Your task to perform on an android device: Go to CNN.com Image 0: 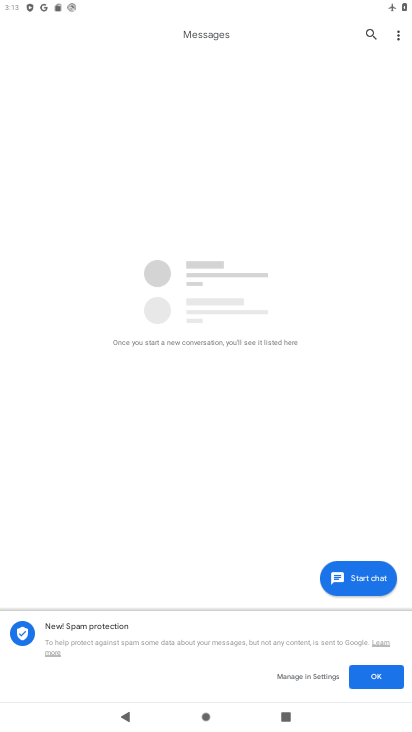
Step 0: press home button
Your task to perform on an android device: Go to CNN.com Image 1: 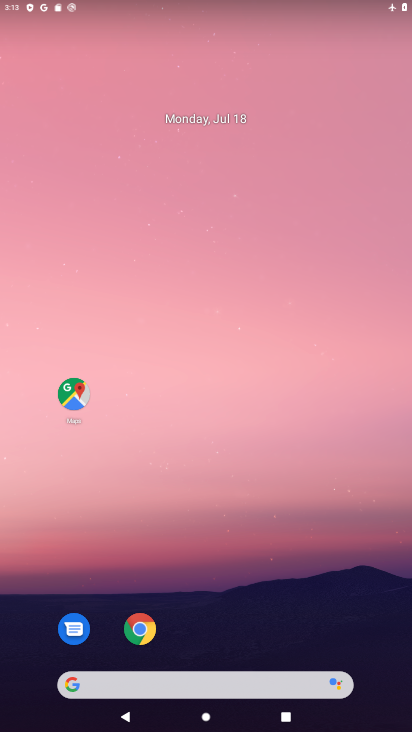
Step 1: drag from (194, 658) to (244, 1)
Your task to perform on an android device: Go to CNN.com Image 2: 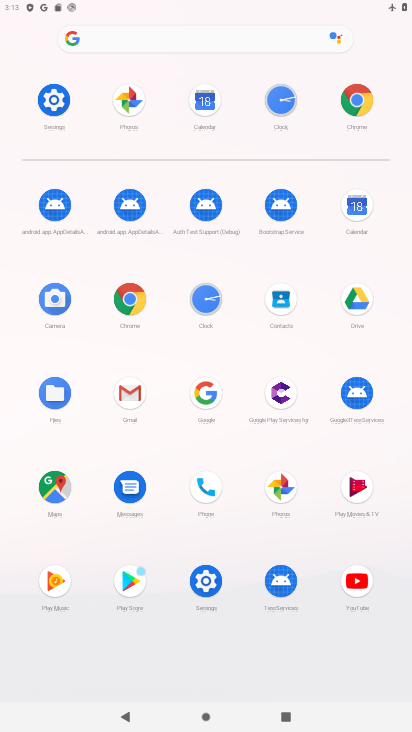
Step 2: click (362, 109)
Your task to perform on an android device: Go to CNN.com Image 3: 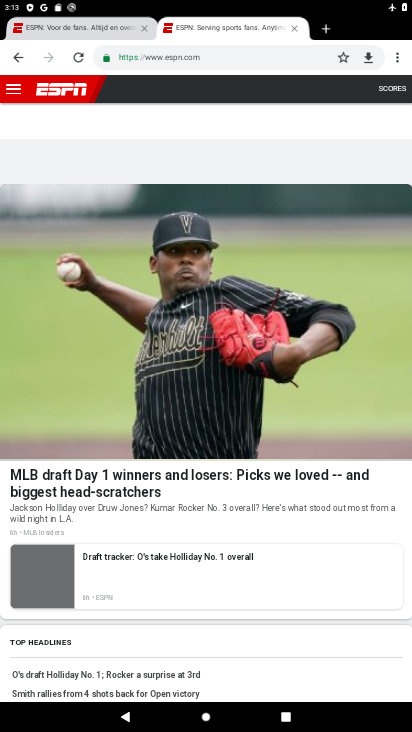
Step 3: click (320, 31)
Your task to perform on an android device: Go to CNN.com Image 4: 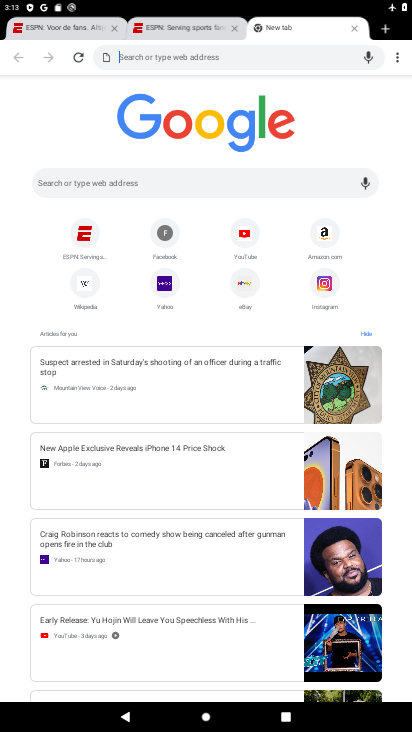
Step 4: click (157, 66)
Your task to perform on an android device: Go to CNN.com Image 5: 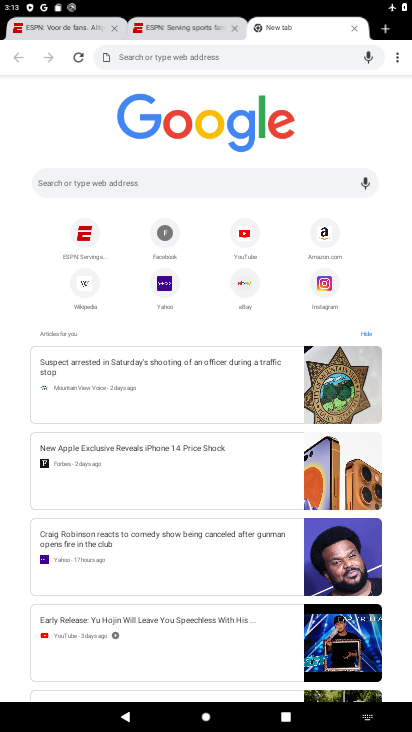
Step 5: type "cnn"
Your task to perform on an android device: Go to CNN.com Image 6: 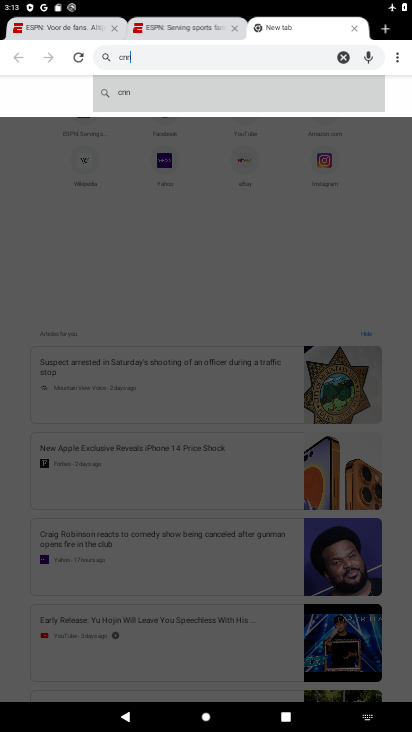
Step 6: click (157, 81)
Your task to perform on an android device: Go to CNN.com Image 7: 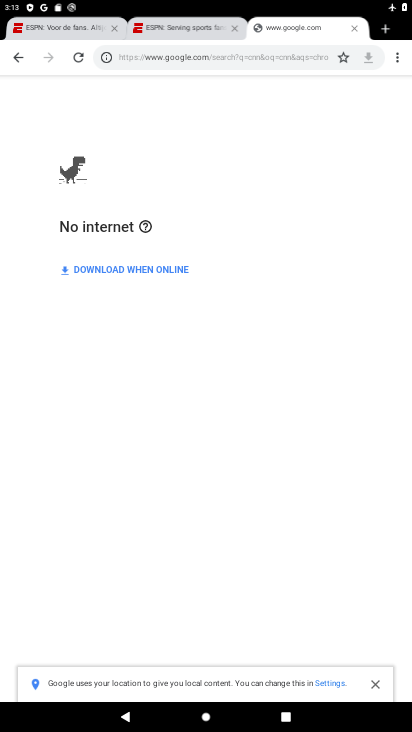
Step 7: task complete